Your task to perform on an android device: toggle airplane mode Image 0: 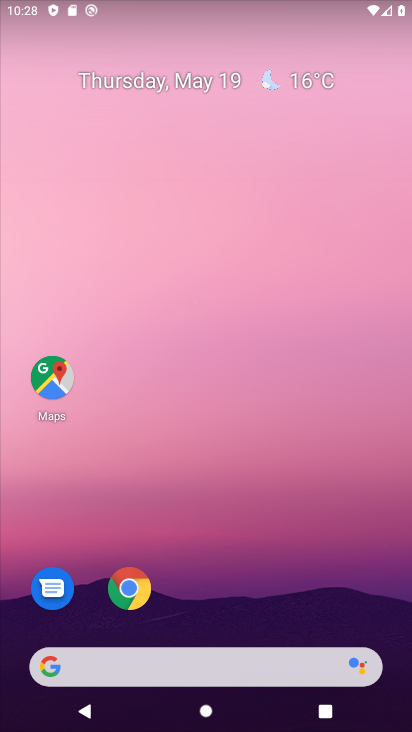
Step 0: drag from (254, 571) to (350, 152)
Your task to perform on an android device: toggle airplane mode Image 1: 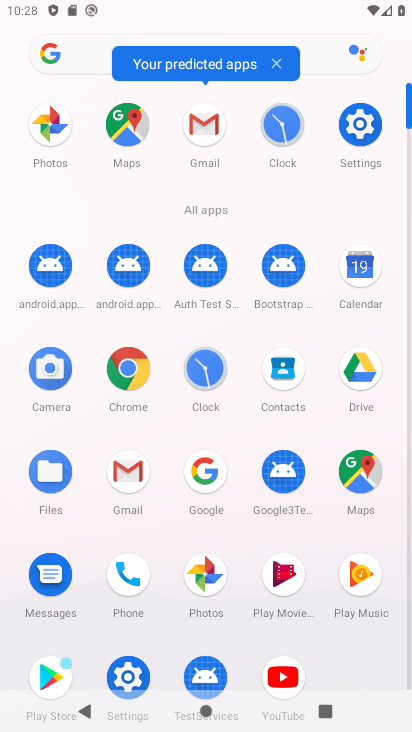
Step 1: click (364, 117)
Your task to perform on an android device: toggle airplane mode Image 2: 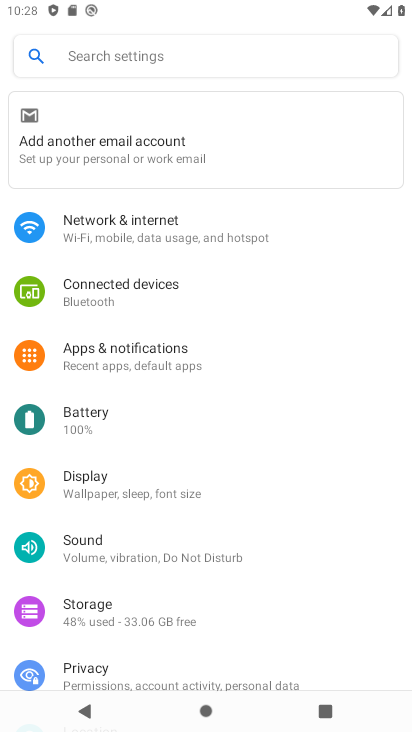
Step 2: click (156, 222)
Your task to perform on an android device: toggle airplane mode Image 3: 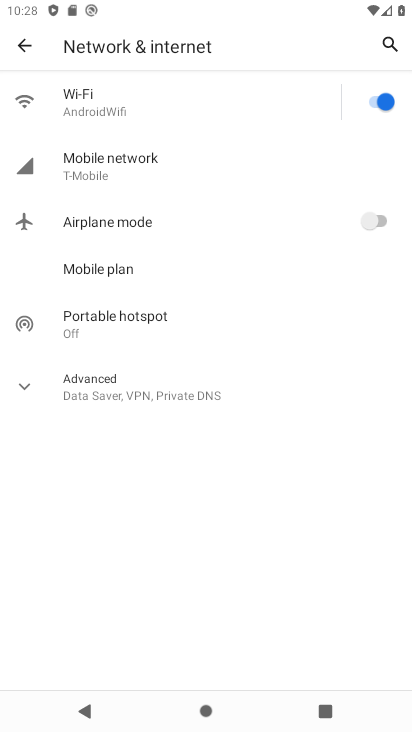
Step 3: click (366, 215)
Your task to perform on an android device: toggle airplane mode Image 4: 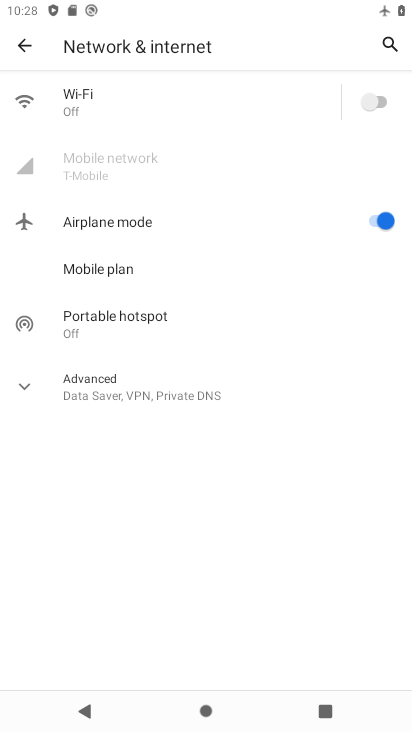
Step 4: task complete